Your task to perform on an android device: Open the calendar and show me this week's events Image 0: 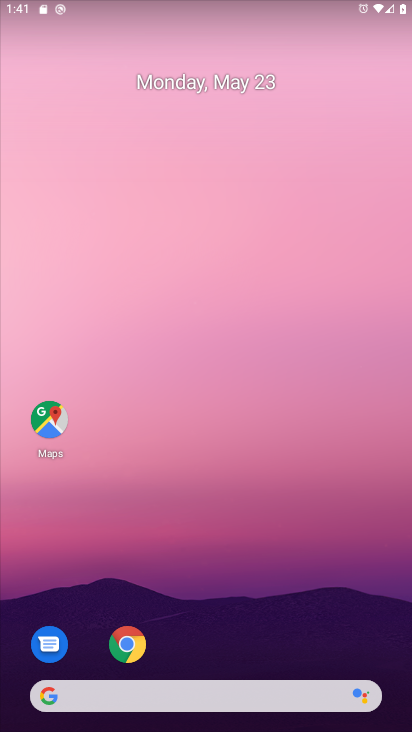
Step 0: drag from (186, 653) to (159, 334)
Your task to perform on an android device: Open the calendar and show me this week's events Image 1: 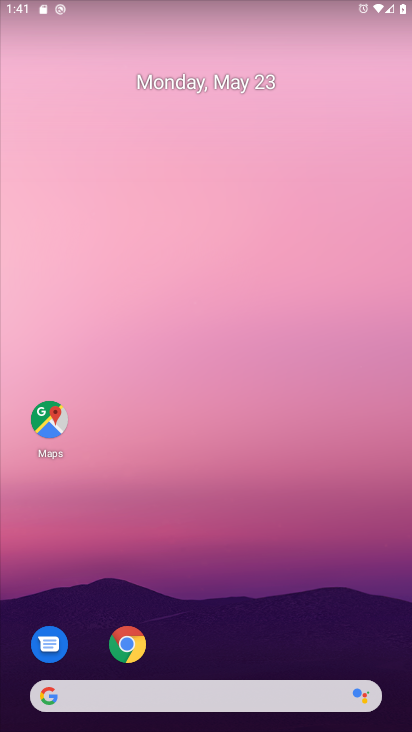
Step 1: drag from (183, 632) to (196, 126)
Your task to perform on an android device: Open the calendar and show me this week's events Image 2: 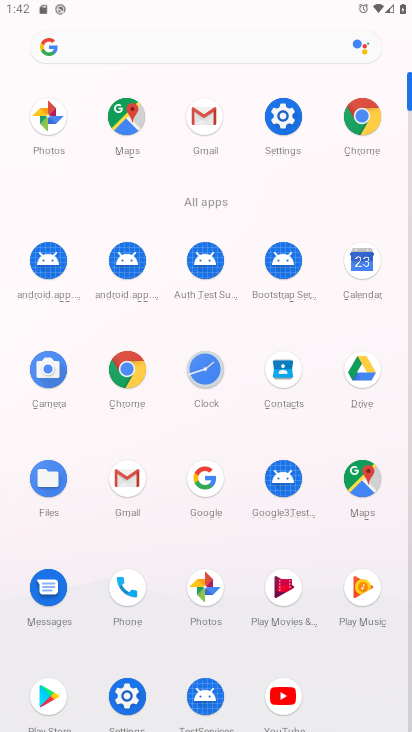
Step 2: click (356, 264)
Your task to perform on an android device: Open the calendar and show me this week's events Image 3: 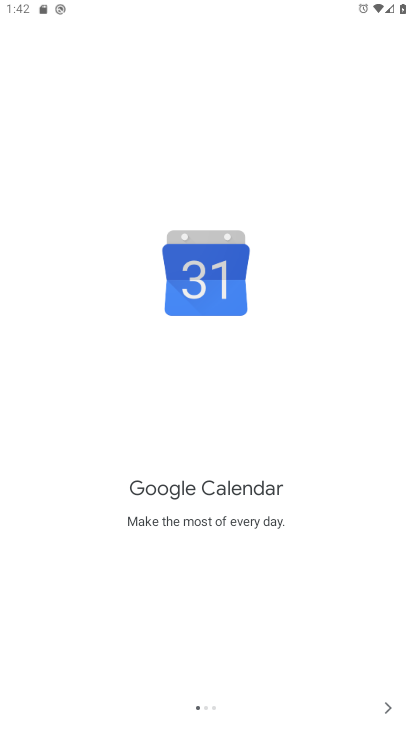
Step 3: click (394, 716)
Your task to perform on an android device: Open the calendar and show me this week's events Image 4: 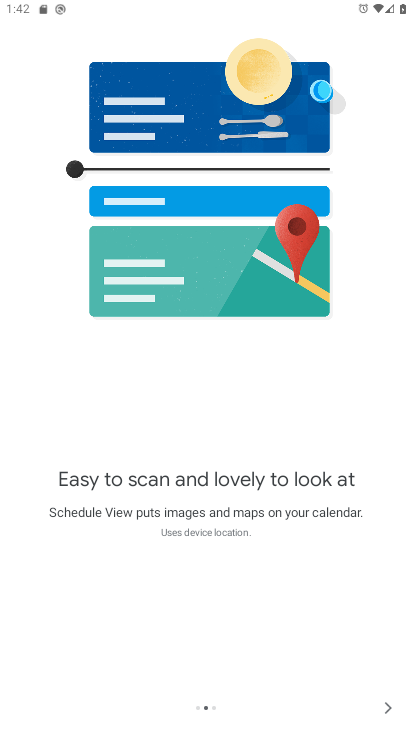
Step 4: click (389, 714)
Your task to perform on an android device: Open the calendar and show me this week's events Image 5: 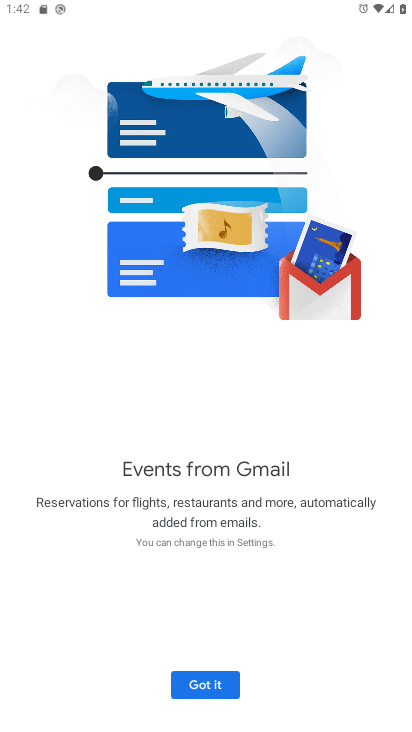
Step 5: click (196, 686)
Your task to perform on an android device: Open the calendar and show me this week's events Image 6: 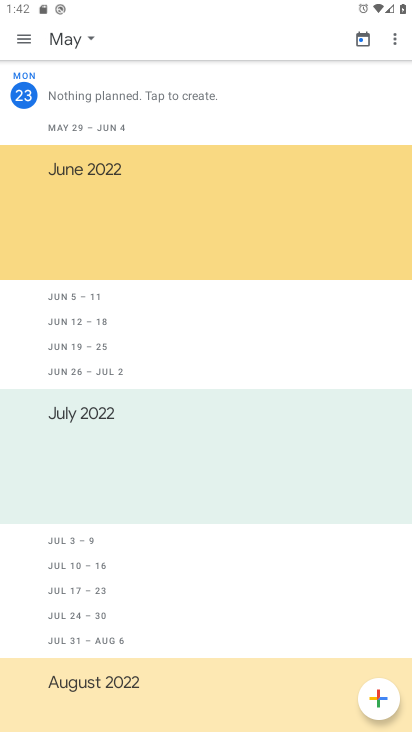
Step 6: click (15, 43)
Your task to perform on an android device: Open the calendar and show me this week's events Image 7: 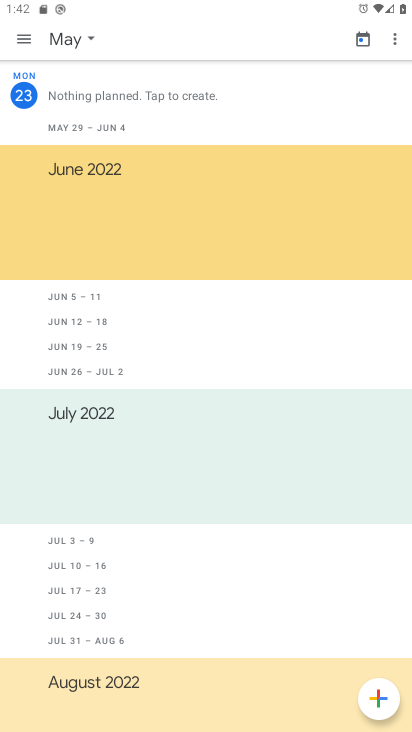
Step 7: click (24, 40)
Your task to perform on an android device: Open the calendar and show me this week's events Image 8: 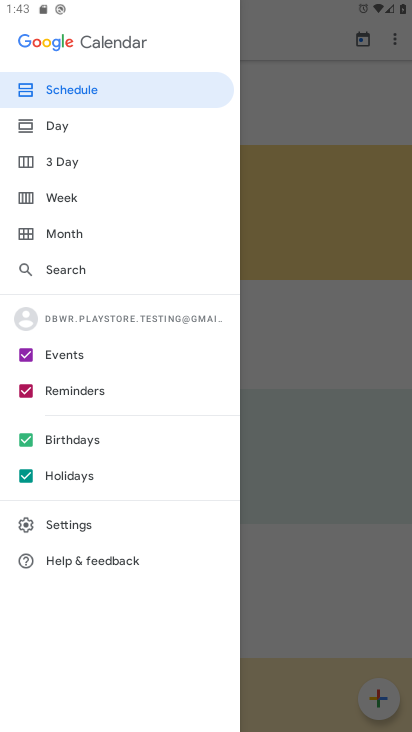
Step 8: click (74, 209)
Your task to perform on an android device: Open the calendar and show me this week's events Image 9: 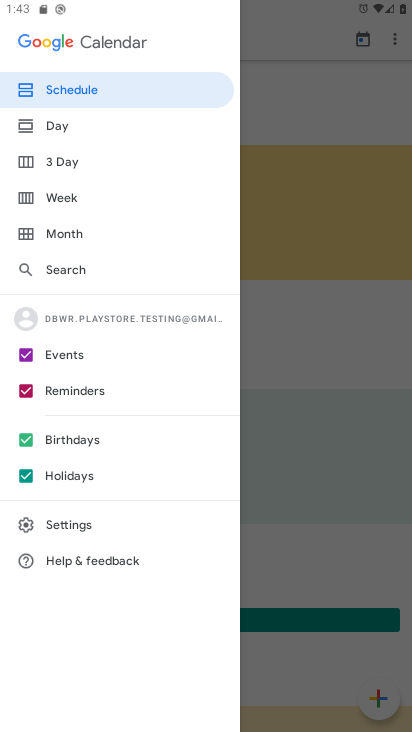
Step 9: click (67, 202)
Your task to perform on an android device: Open the calendar and show me this week's events Image 10: 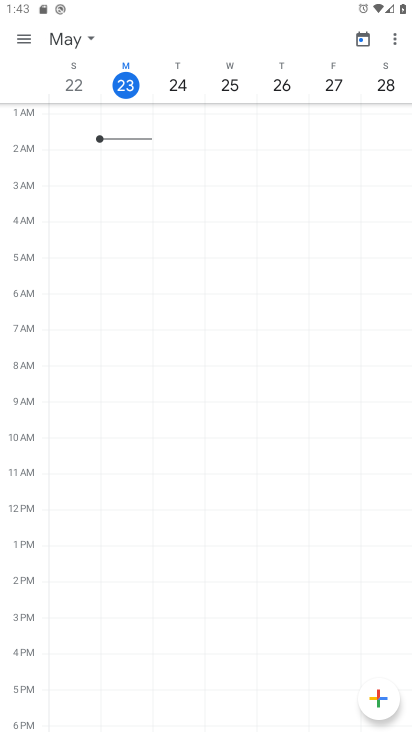
Step 10: click (70, 34)
Your task to perform on an android device: Open the calendar and show me this week's events Image 11: 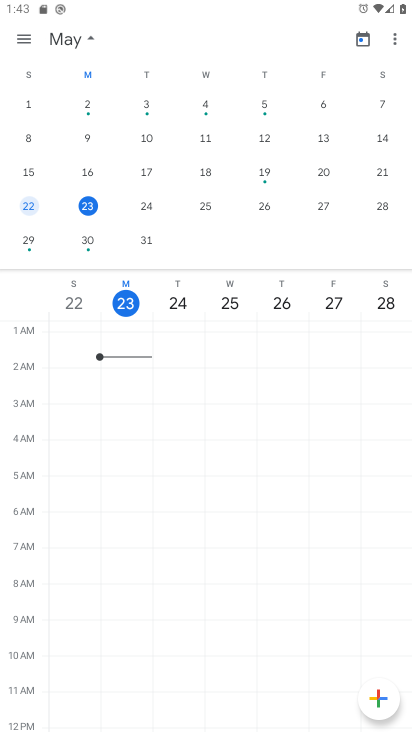
Step 11: click (30, 209)
Your task to perform on an android device: Open the calendar and show me this week's events Image 12: 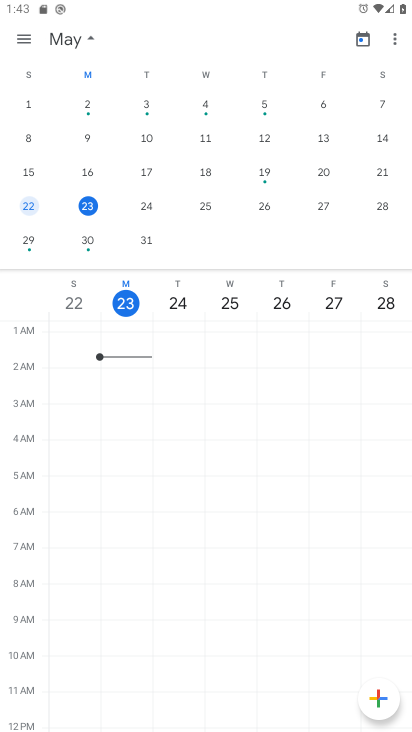
Step 12: click (30, 209)
Your task to perform on an android device: Open the calendar and show me this week's events Image 13: 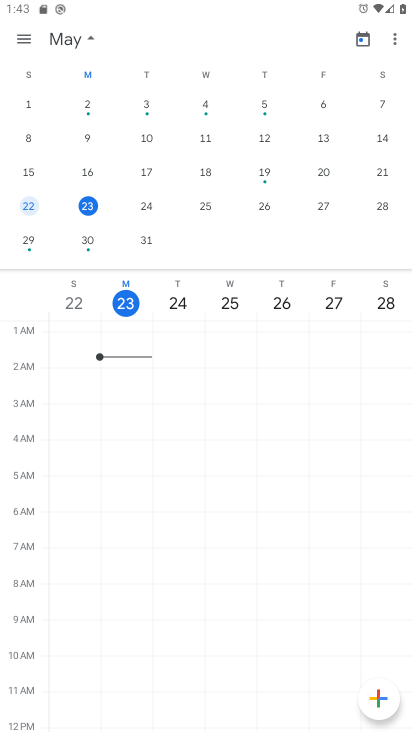
Step 13: click (35, 207)
Your task to perform on an android device: Open the calendar and show me this week's events Image 14: 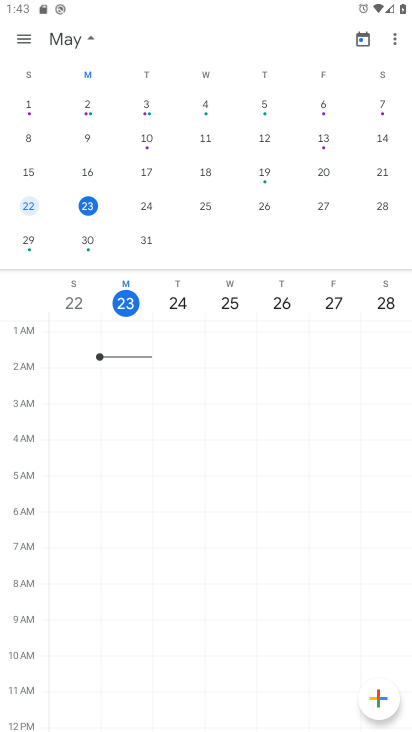
Step 14: click (33, 207)
Your task to perform on an android device: Open the calendar and show me this week's events Image 15: 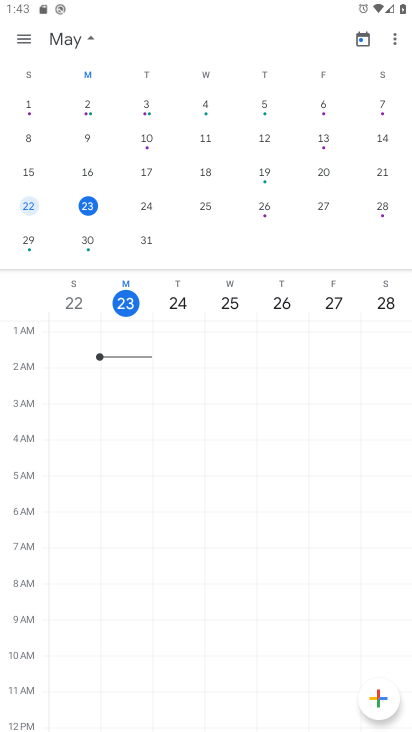
Step 15: click (33, 207)
Your task to perform on an android device: Open the calendar and show me this week's events Image 16: 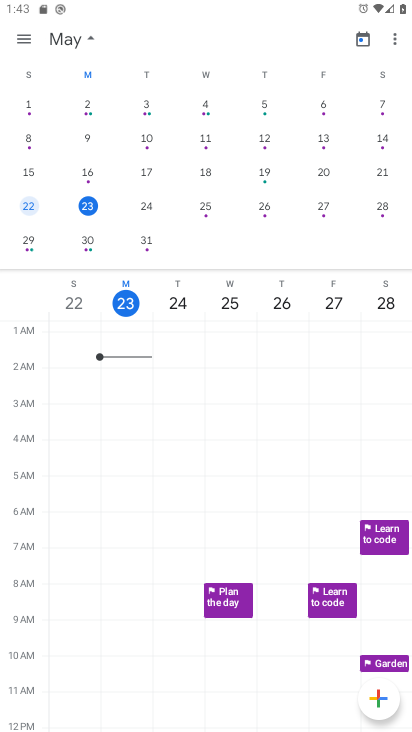
Step 16: click (33, 207)
Your task to perform on an android device: Open the calendar and show me this week's events Image 17: 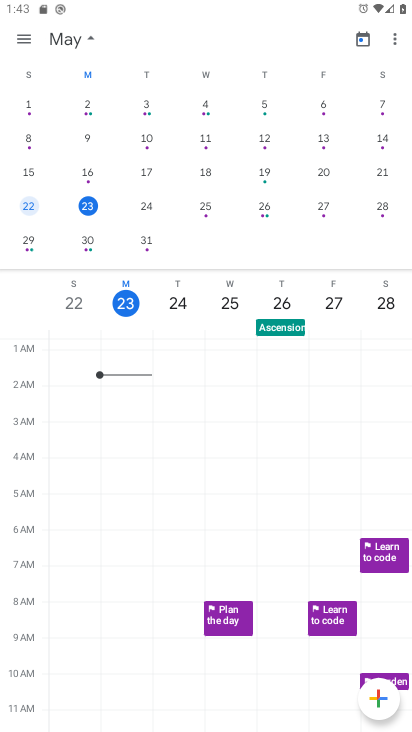
Step 17: click (38, 208)
Your task to perform on an android device: Open the calendar and show me this week's events Image 18: 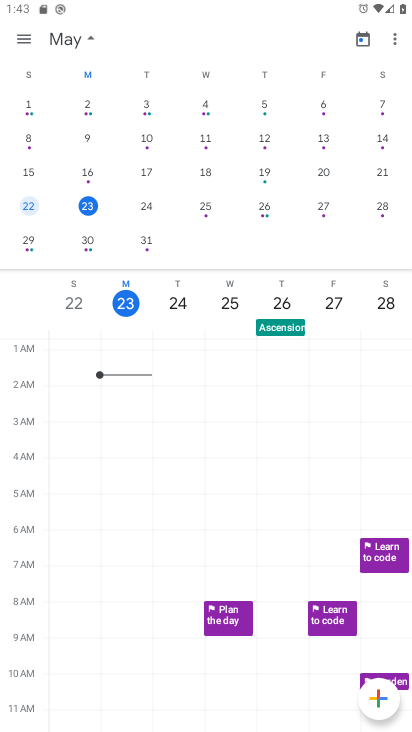
Step 18: drag from (128, 652) to (244, 142)
Your task to perform on an android device: Open the calendar and show me this week's events Image 19: 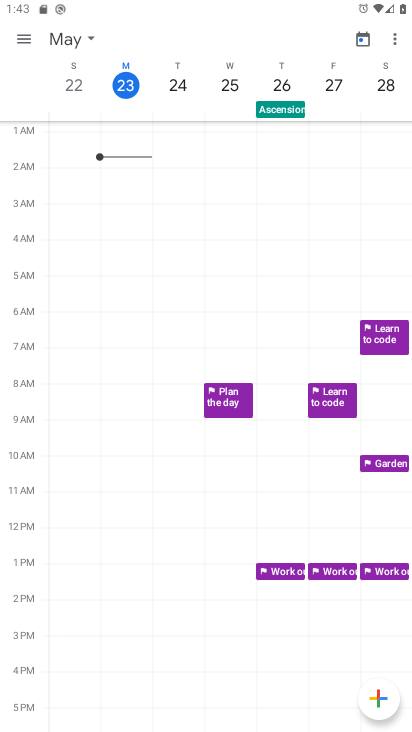
Step 19: drag from (198, 572) to (198, 184)
Your task to perform on an android device: Open the calendar and show me this week's events Image 20: 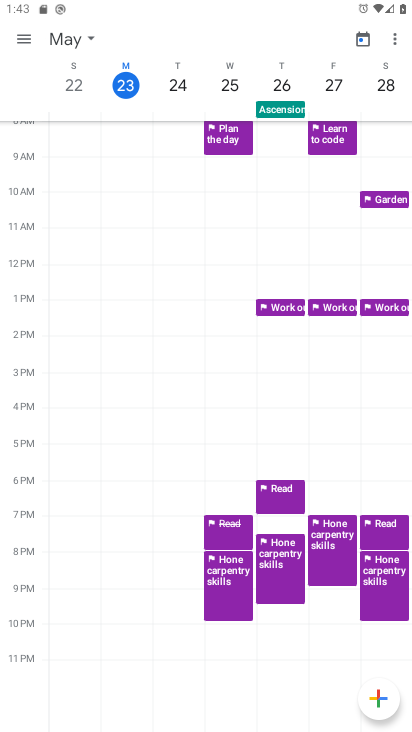
Step 20: drag from (132, 307) to (163, 13)
Your task to perform on an android device: Open the calendar and show me this week's events Image 21: 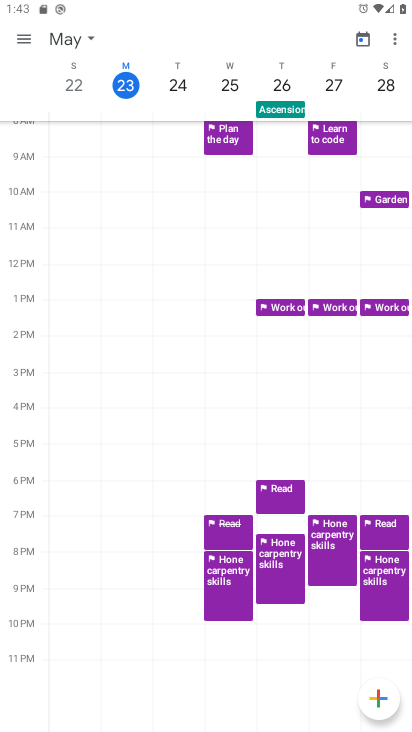
Step 21: drag from (162, 586) to (228, 187)
Your task to perform on an android device: Open the calendar and show me this week's events Image 22: 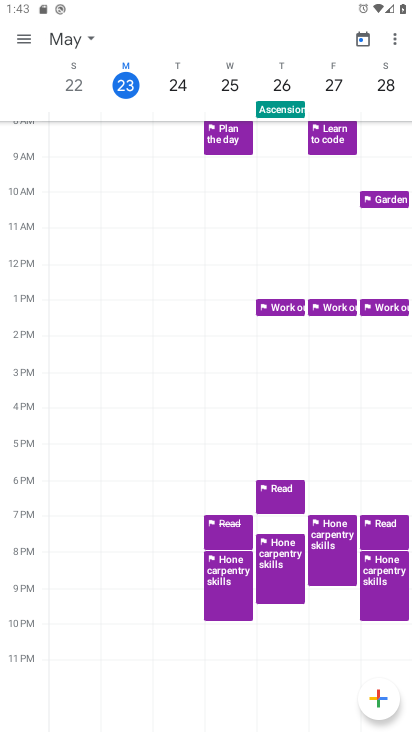
Step 22: click (157, 265)
Your task to perform on an android device: Open the calendar and show me this week's events Image 23: 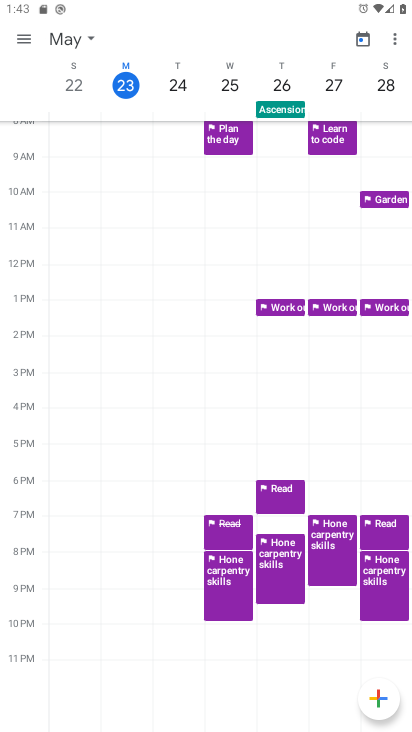
Step 23: task complete